Your task to perform on an android device: Go to calendar. Show me events next week Image 0: 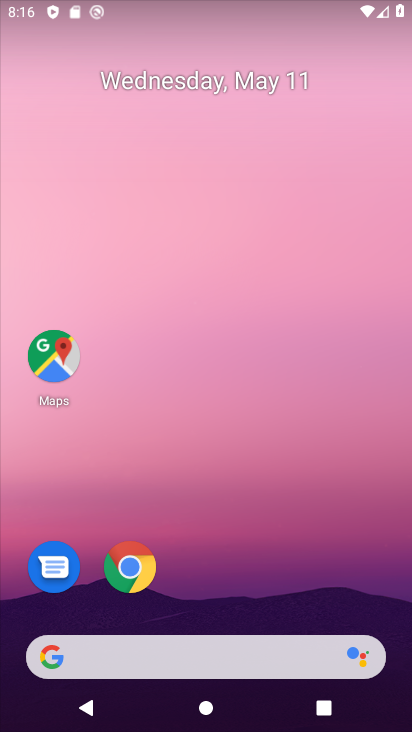
Step 0: drag from (265, 622) to (240, 50)
Your task to perform on an android device: Go to calendar. Show me events next week Image 1: 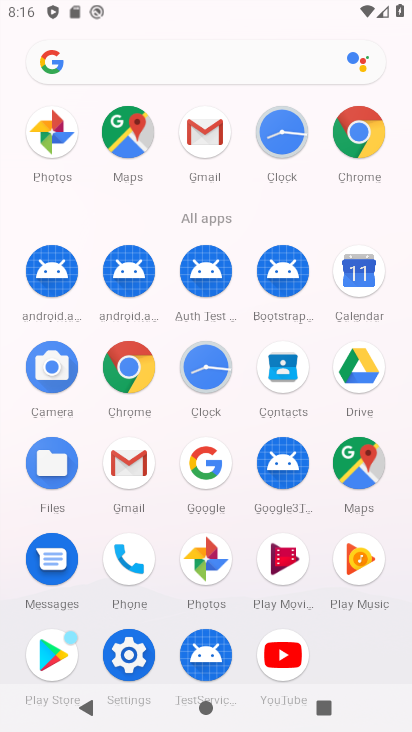
Step 1: click (361, 275)
Your task to perform on an android device: Go to calendar. Show me events next week Image 2: 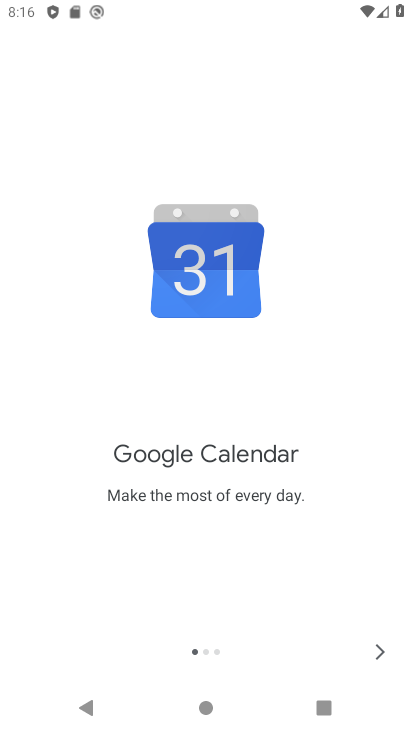
Step 2: click (376, 645)
Your task to perform on an android device: Go to calendar. Show me events next week Image 3: 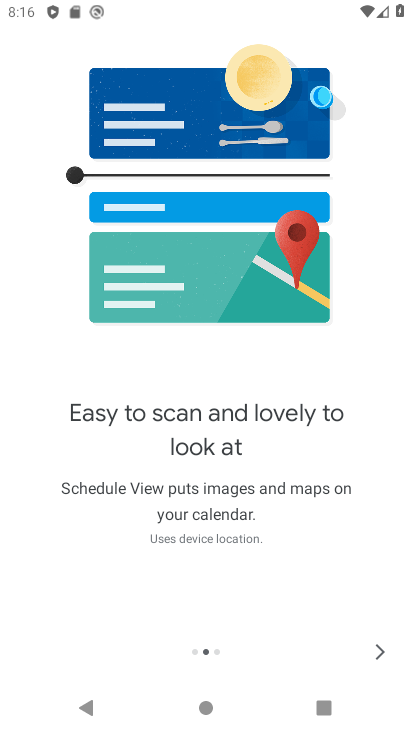
Step 3: click (376, 645)
Your task to perform on an android device: Go to calendar. Show me events next week Image 4: 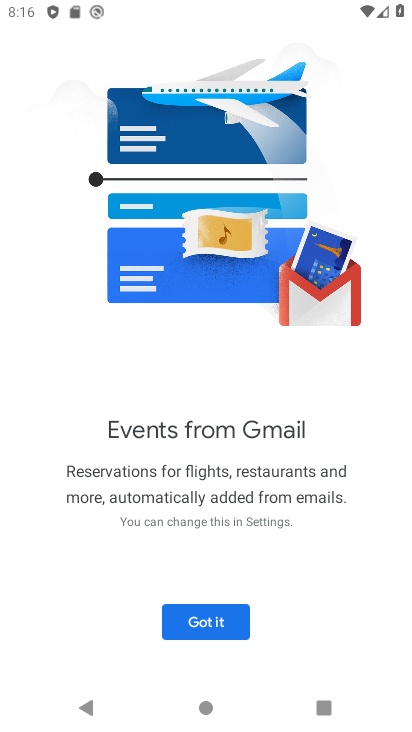
Step 4: click (191, 611)
Your task to perform on an android device: Go to calendar. Show me events next week Image 5: 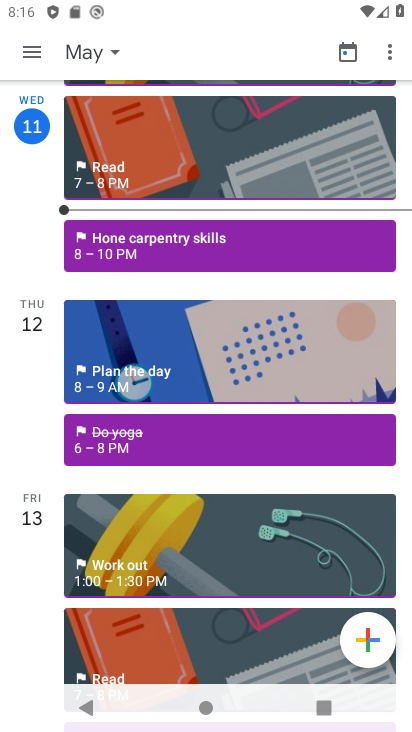
Step 5: click (114, 47)
Your task to perform on an android device: Go to calendar. Show me events next week Image 6: 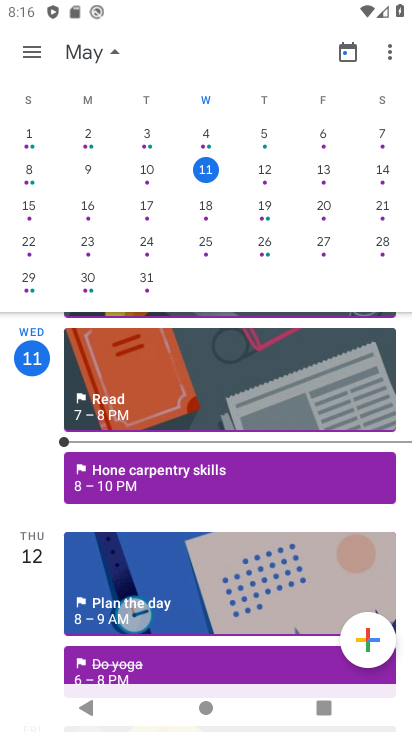
Step 6: click (270, 206)
Your task to perform on an android device: Go to calendar. Show me events next week Image 7: 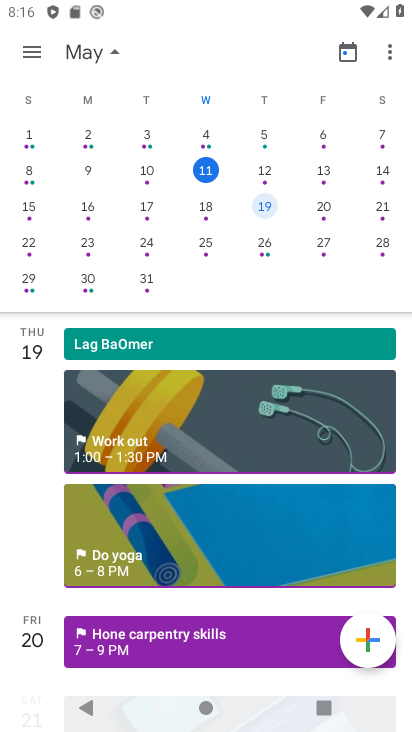
Step 7: click (36, 48)
Your task to perform on an android device: Go to calendar. Show me events next week Image 8: 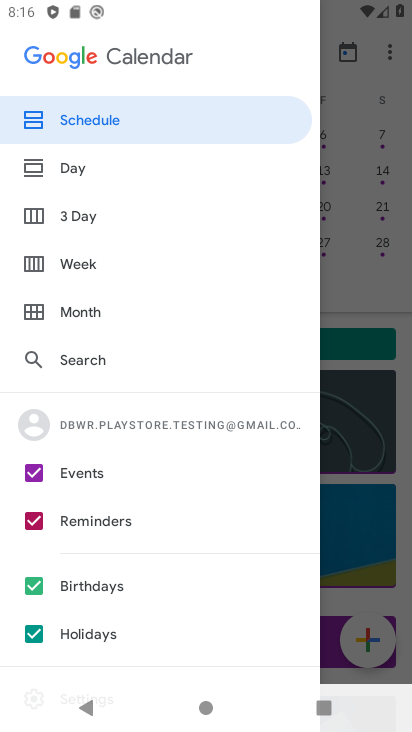
Step 8: click (114, 264)
Your task to perform on an android device: Go to calendar. Show me events next week Image 9: 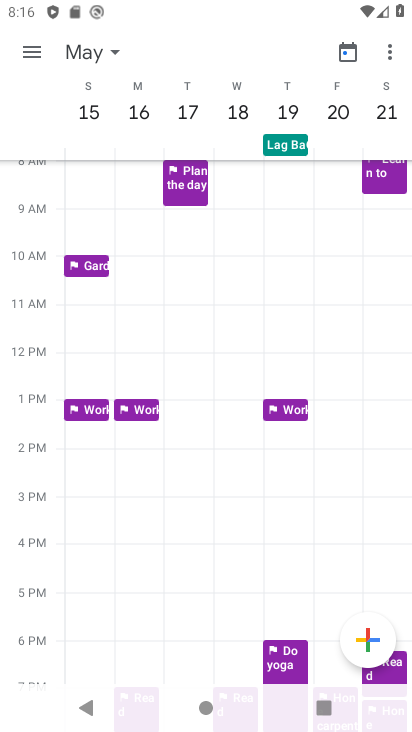
Step 9: task complete